Your task to perform on an android device: Open Youtube and go to "Your channel" Image 0: 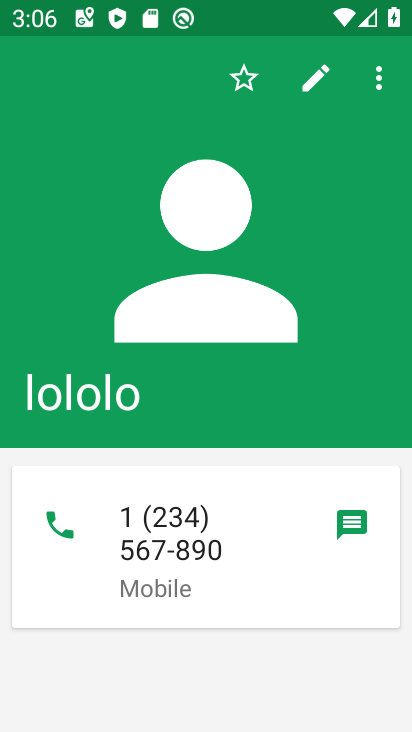
Step 0: press home button
Your task to perform on an android device: Open Youtube and go to "Your channel" Image 1: 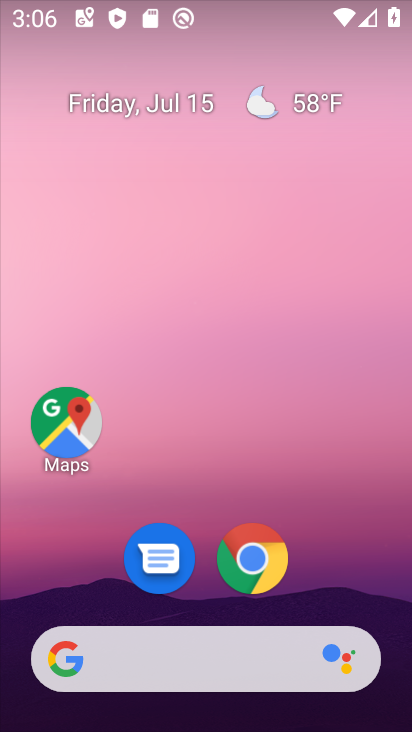
Step 1: drag from (366, 592) to (361, 72)
Your task to perform on an android device: Open Youtube and go to "Your channel" Image 2: 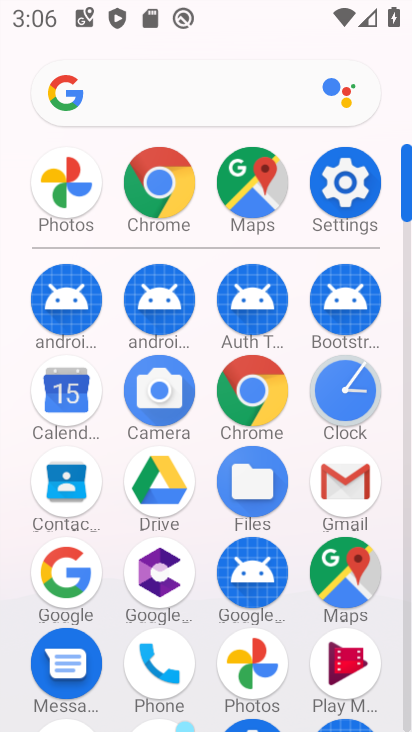
Step 2: drag from (391, 454) to (390, 164)
Your task to perform on an android device: Open Youtube and go to "Your channel" Image 3: 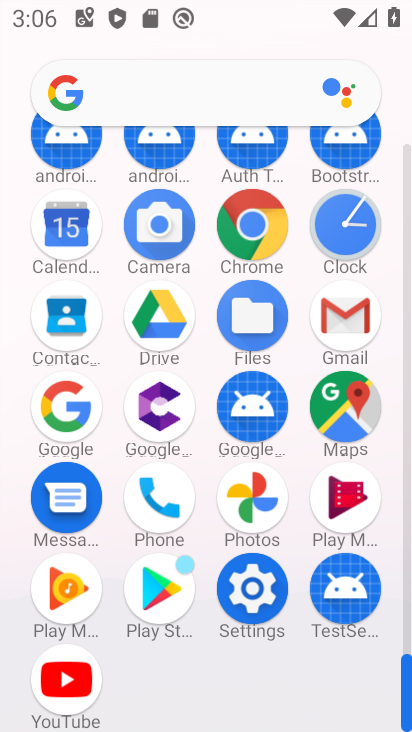
Step 3: click (73, 674)
Your task to perform on an android device: Open Youtube and go to "Your channel" Image 4: 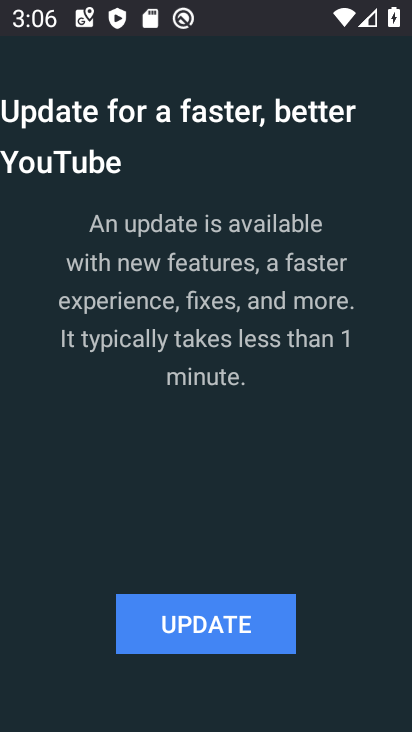
Step 4: click (188, 628)
Your task to perform on an android device: Open Youtube and go to "Your channel" Image 5: 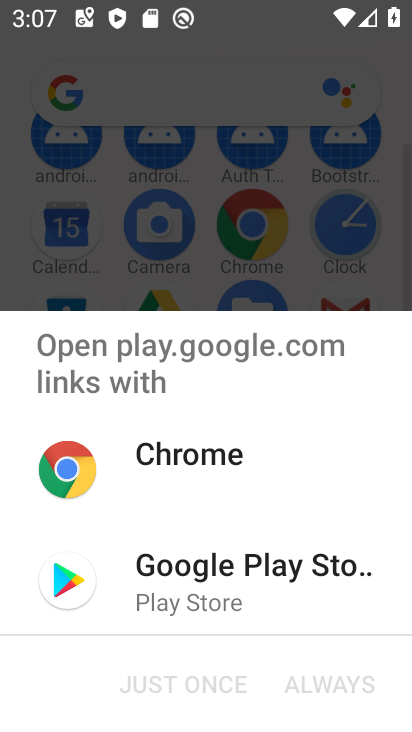
Step 5: click (200, 597)
Your task to perform on an android device: Open Youtube and go to "Your channel" Image 6: 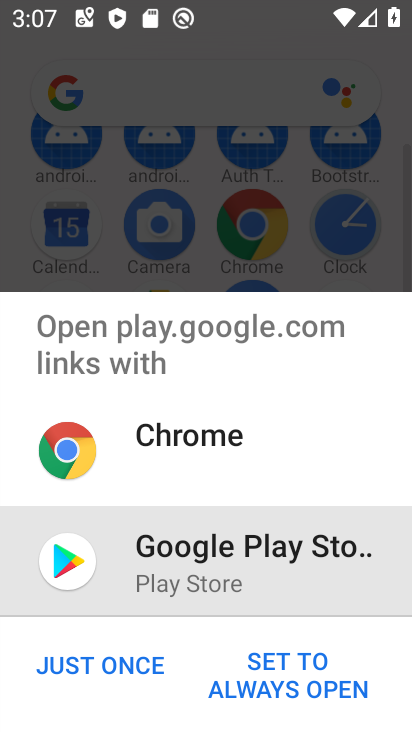
Step 6: click (132, 664)
Your task to perform on an android device: Open Youtube and go to "Your channel" Image 7: 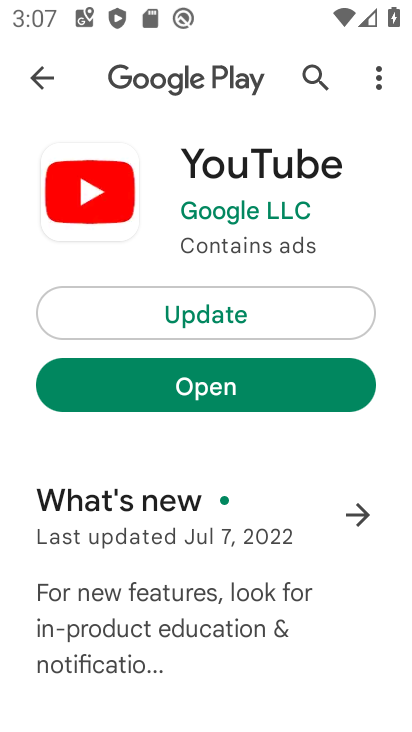
Step 7: click (228, 324)
Your task to perform on an android device: Open Youtube and go to "Your channel" Image 8: 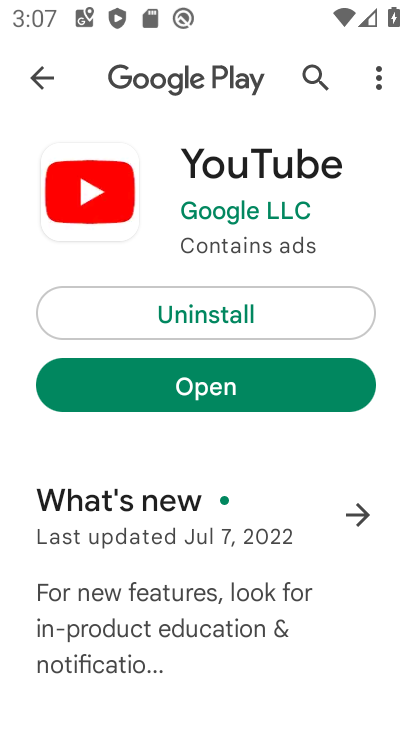
Step 8: click (301, 391)
Your task to perform on an android device: Open Youtube and go to "Your channel" Image 9: 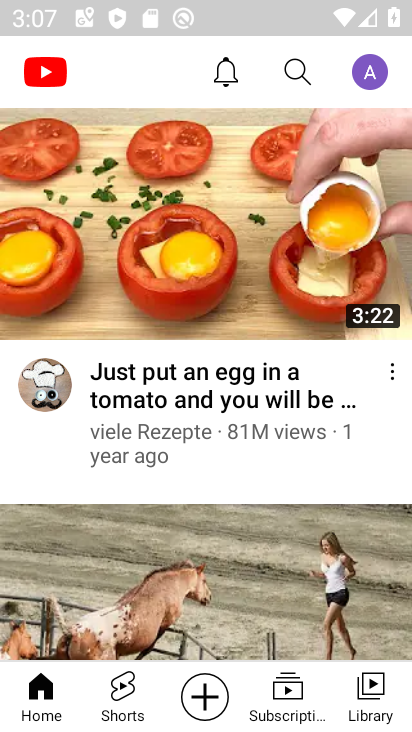
Step 9: click (371, 62)
Your task to perform on an android device: Open Youtube and go to "Your channel" Image 10: 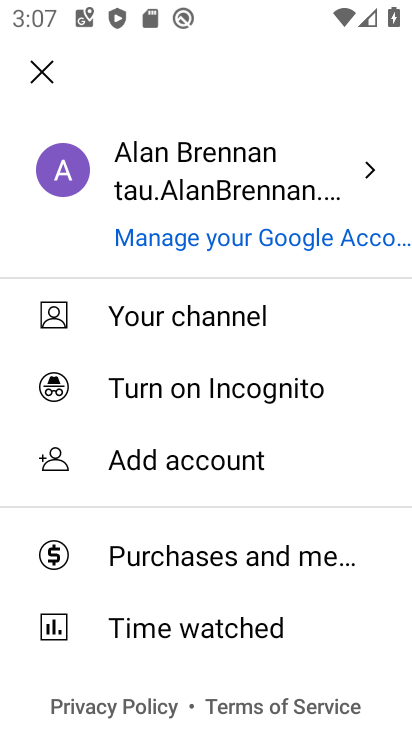
Step 10: click (308, 323)
Your task to perform on an android device: Open Youtube and go to "Your channel" Image 11: 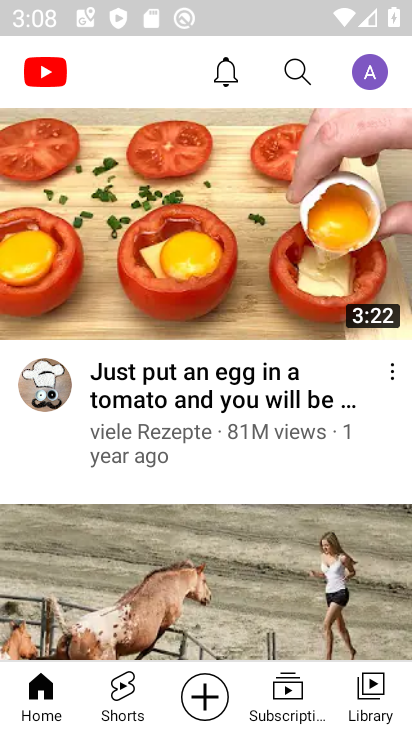
Step 11: task complete